Your task to perform on an android device: Open Google Image 0: 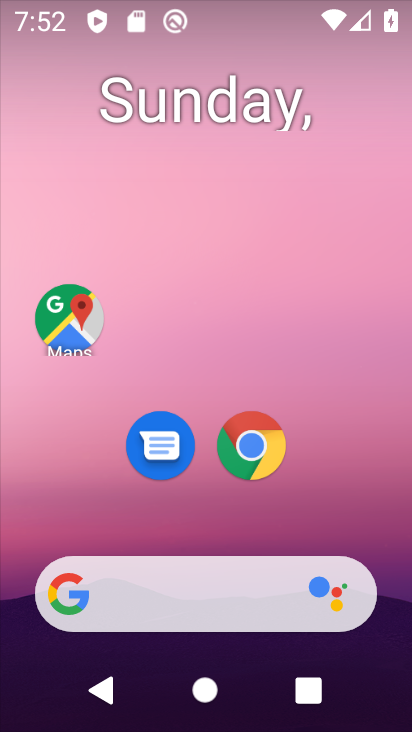
Step 0: drag from (198, 366) to (201, 126)
Your task to perform on an android device: Open Google Image 1: 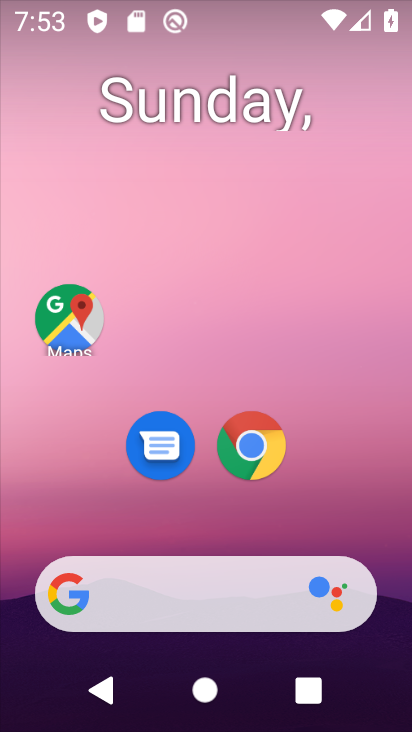
Step 1: drag from (193, 543) to (193, 113)
Your task to perform on an android device: Open Google Image 2: 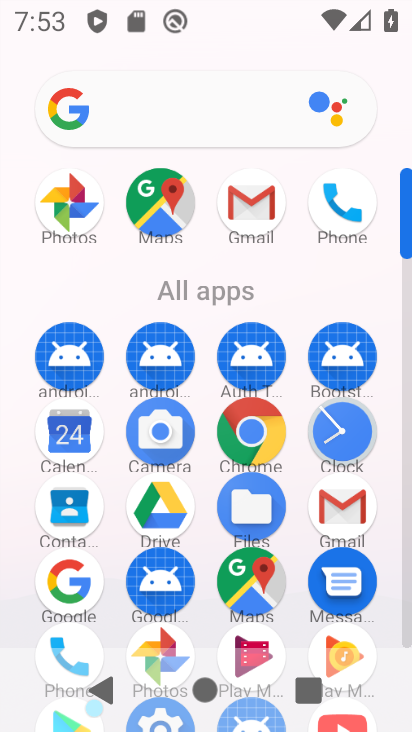
Step 2: click (73, 579)
Your task to perform on an android device: Open Google Image 3: 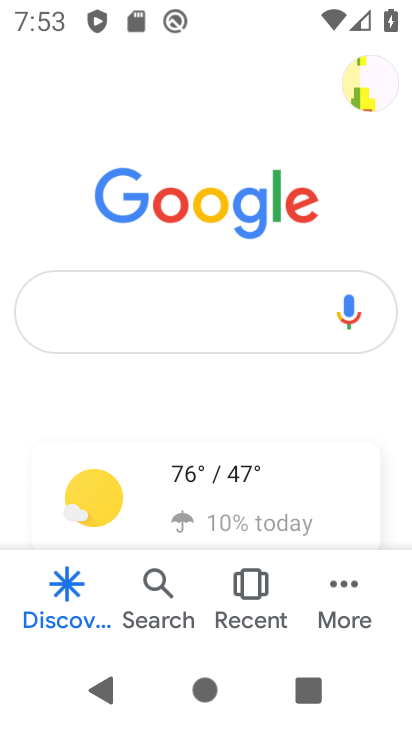
Step 3: task complete